Your task to perform on an android device: What's the weather going to be this weekend? Image 0: 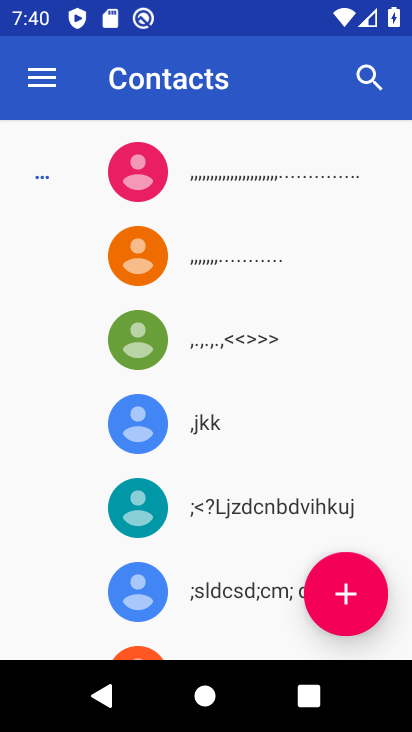
Step 0: press home button
Your task to perform on an android device: What's the weather going to be this weekend? Image 1: 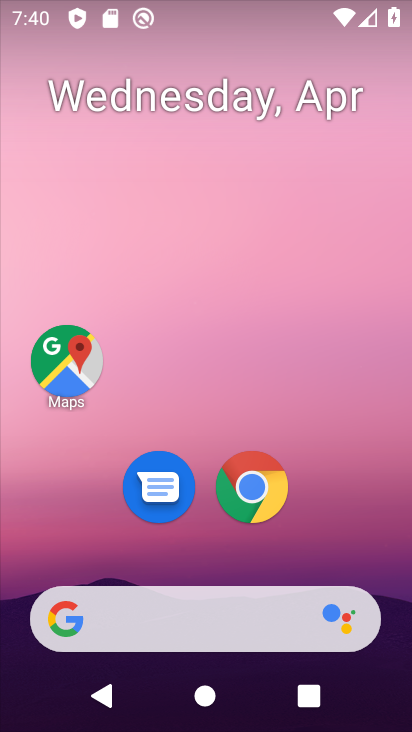
Step 1: click (267, 498)
Your task to perform on an android device: What's the weather going to be this weekend? Image 2: 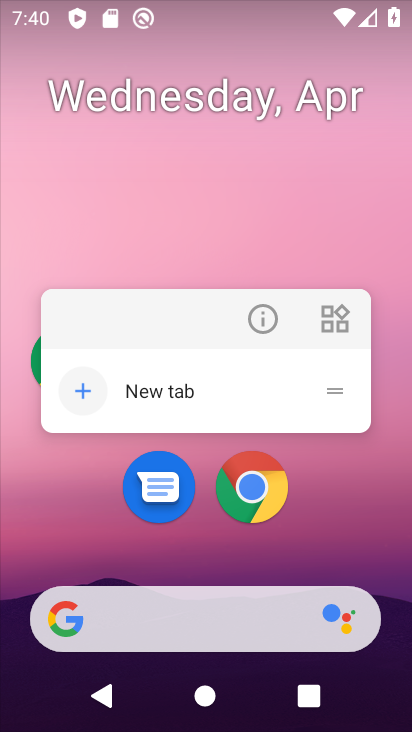
Step 2: drag from (348, 519) to (378, 3)
Your task to perform on an android device: What's the weather going to be this weekend? Image 3: 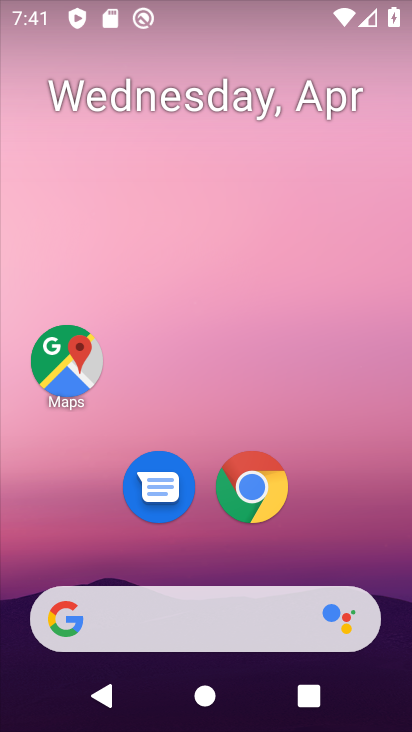
Step 3: drag from (323, 407) to (297, 147)
Your task to perform on an android device: What's the weather going to be this weekend? Image 4: 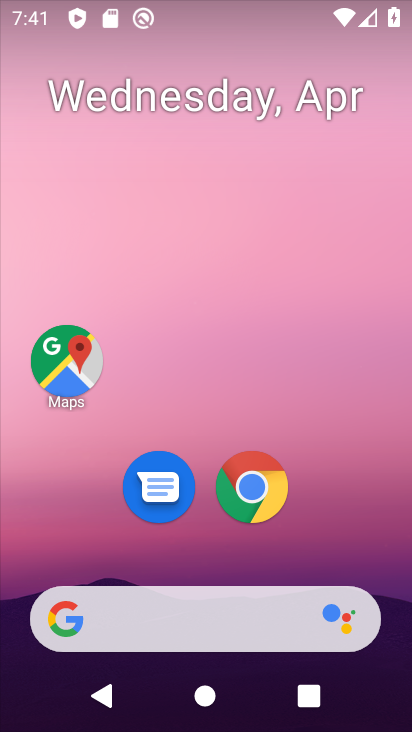
Step 4: drag from (341, 540) to (294, 106)
Your task to perform on an android device: What's the weather going to be this weekend? Image 5: 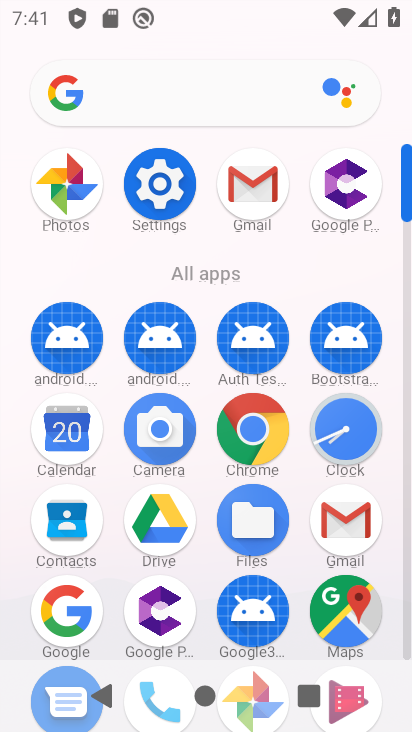
Step 5: click (255, 432)
Your task to perform on an android device: What's the weather going to be this weekend? Image 6: 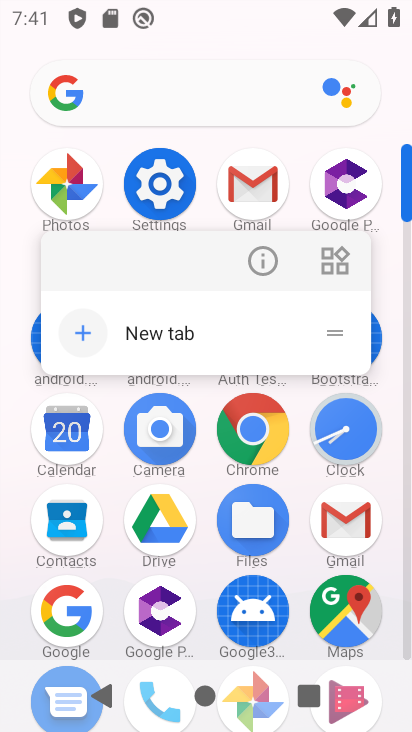
Step 6: click (243, 434)
Your task to perform on an android device: What's the weather going to be this weekend? Image 7: 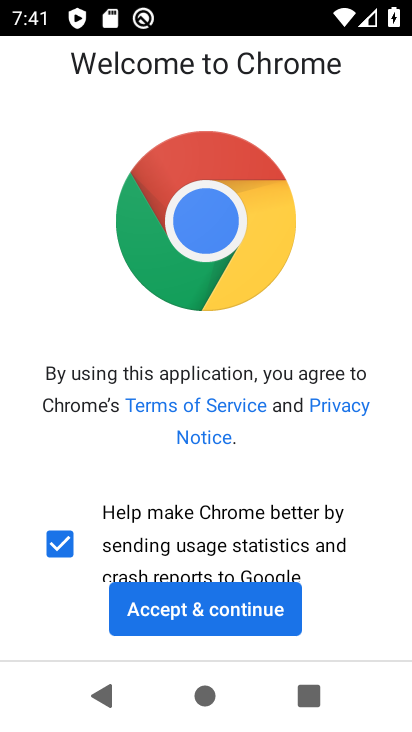
Step 7: click (233, 593)
Your task to perform on an android device: What's the weather going to be this weekend? Image 8: 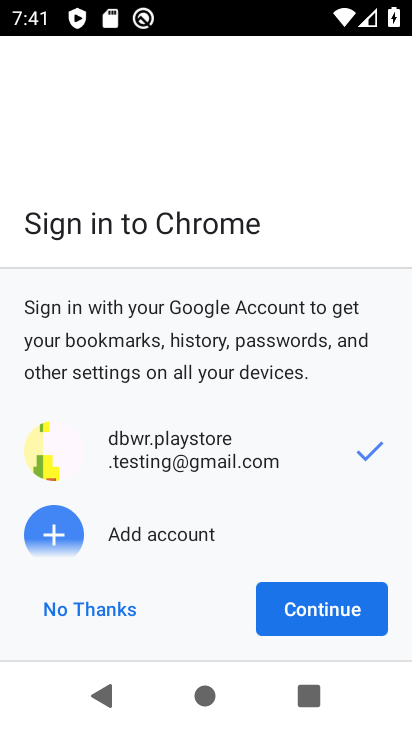
Step 8: click (283, 593)
Your task to perform on an android device: What's the weather going to be this weekend? Image 9: 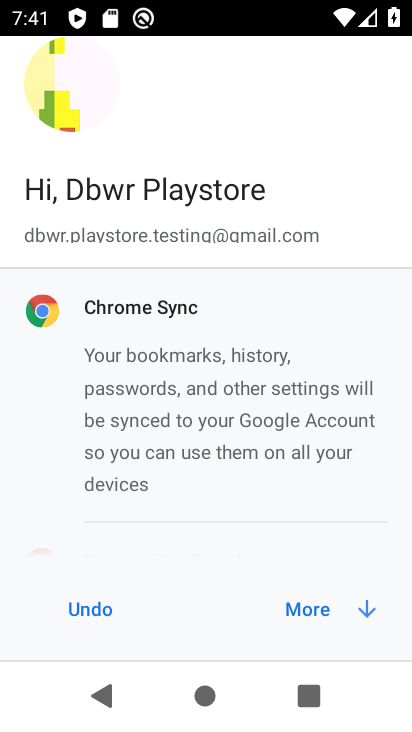
Step 9: click (284, 607)
Your task to perform on an android device: What's the weather going to be this weekend? Image 10: 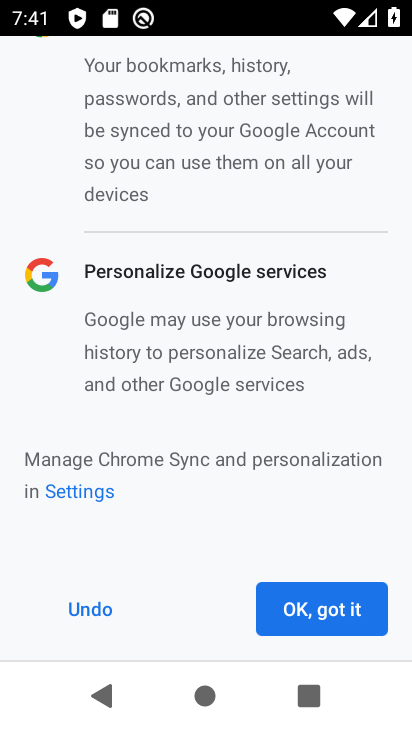
Step 10: click (284, 607)
Your task to perform on an android device: What's the weather going to be this weekend? Image 11: 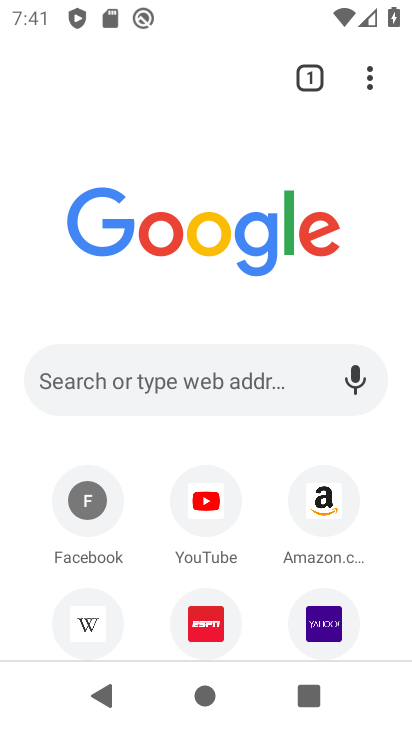
Step 11: click (236, 366)
Your task to perform on an android device: What's the weather going to be this weekend? Image 12: 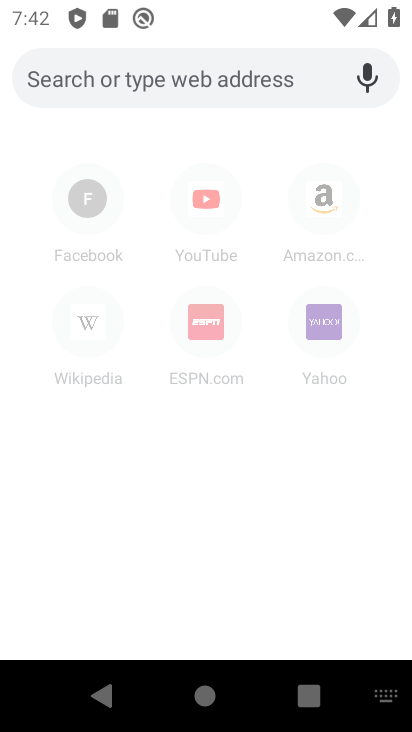
Step 12: type "weather"
Your task to perform on an android device: What's the weather going to be this weekend? Image 13: 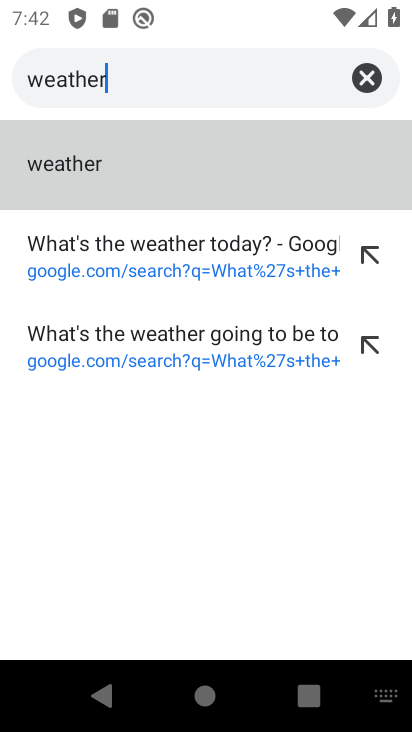
Step 13: press enter
Your task to perform on an android device: What's the weather going to be this weekend? Image 14: 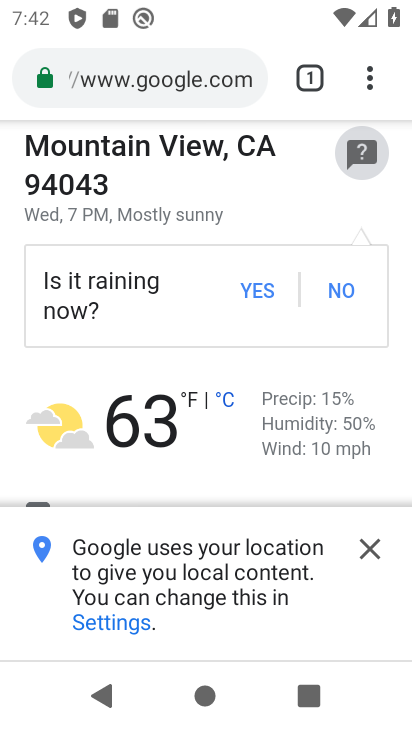
Step 14: task complete